Your task to perform on an android device: Open the Play Movies app and select the watchlist tab. Image 0: 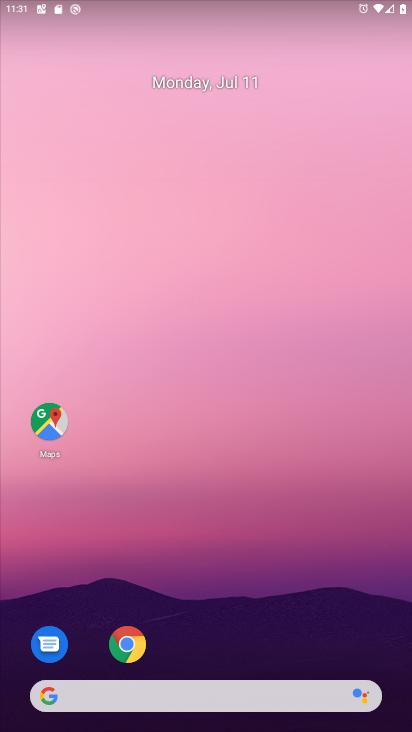
Step 0: drag from (324, 626) to (324, 252)
Your task to perform on an android device: Open the Play Movies app and select the watchlist tab. Image 1: 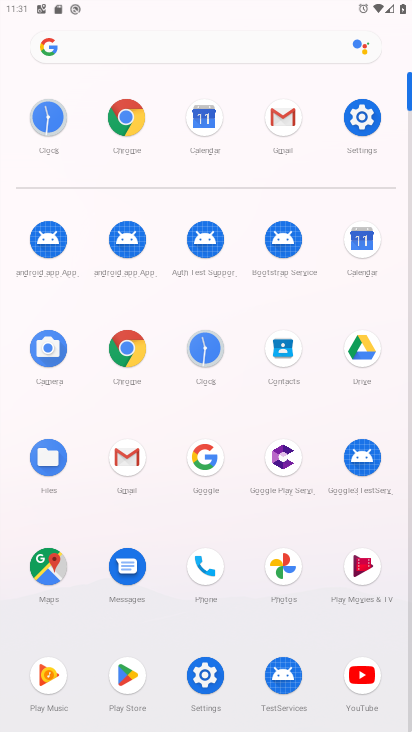
Step 1: click (361, 568)
Your task to perform on an android device: Open the Play Movies app and select the watchlist tab. Image 2: 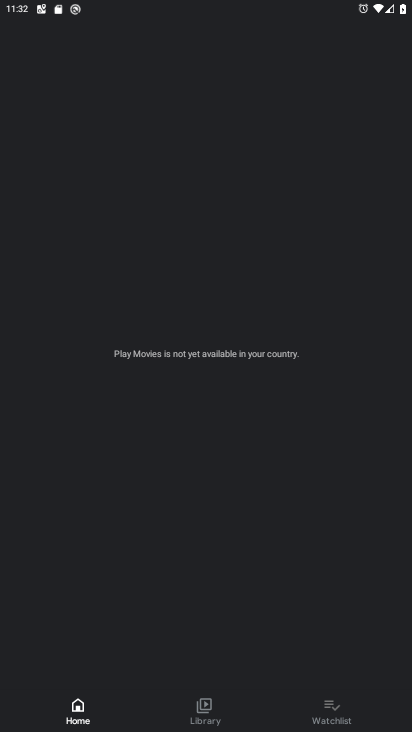
Step 2: click (339, 710)
Your task to perform on an android device: Open the Play Movies app and select the watchlist tab. Image 3: 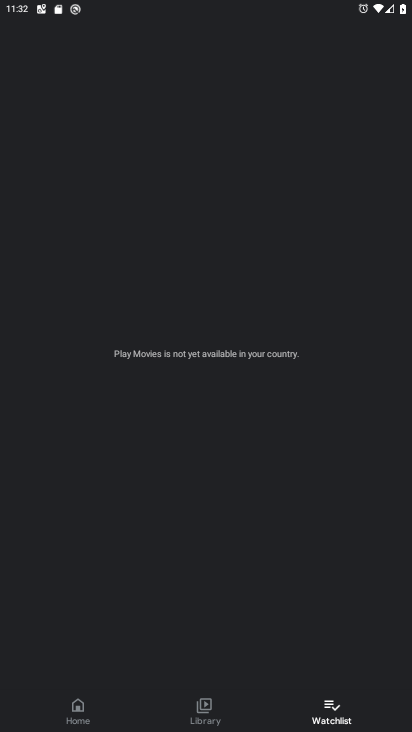
Step 3: task complete